Your task to perform on an android device: turn off sleep mode Image 0: 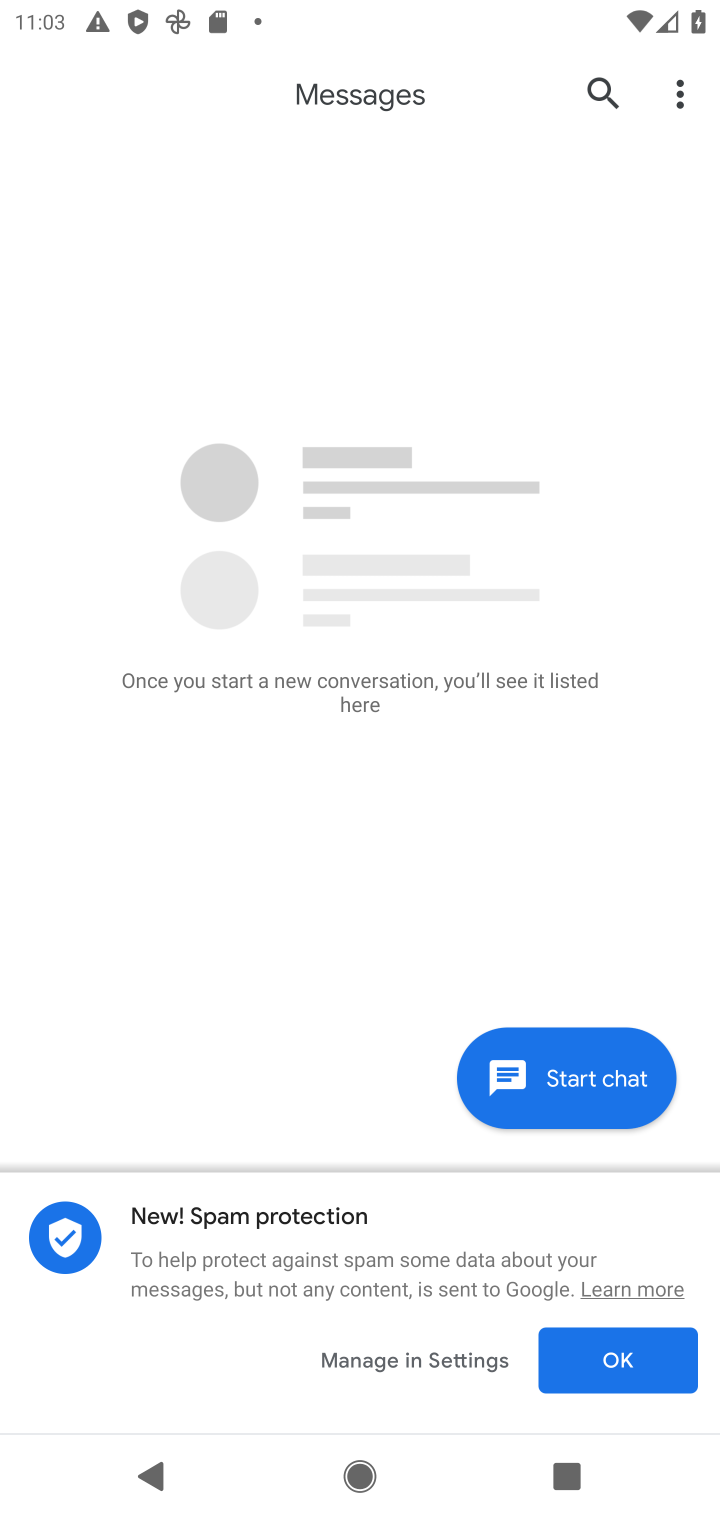
Step 0: press home button
Your task to perform on an android device: turn off sleep mode Image 1: 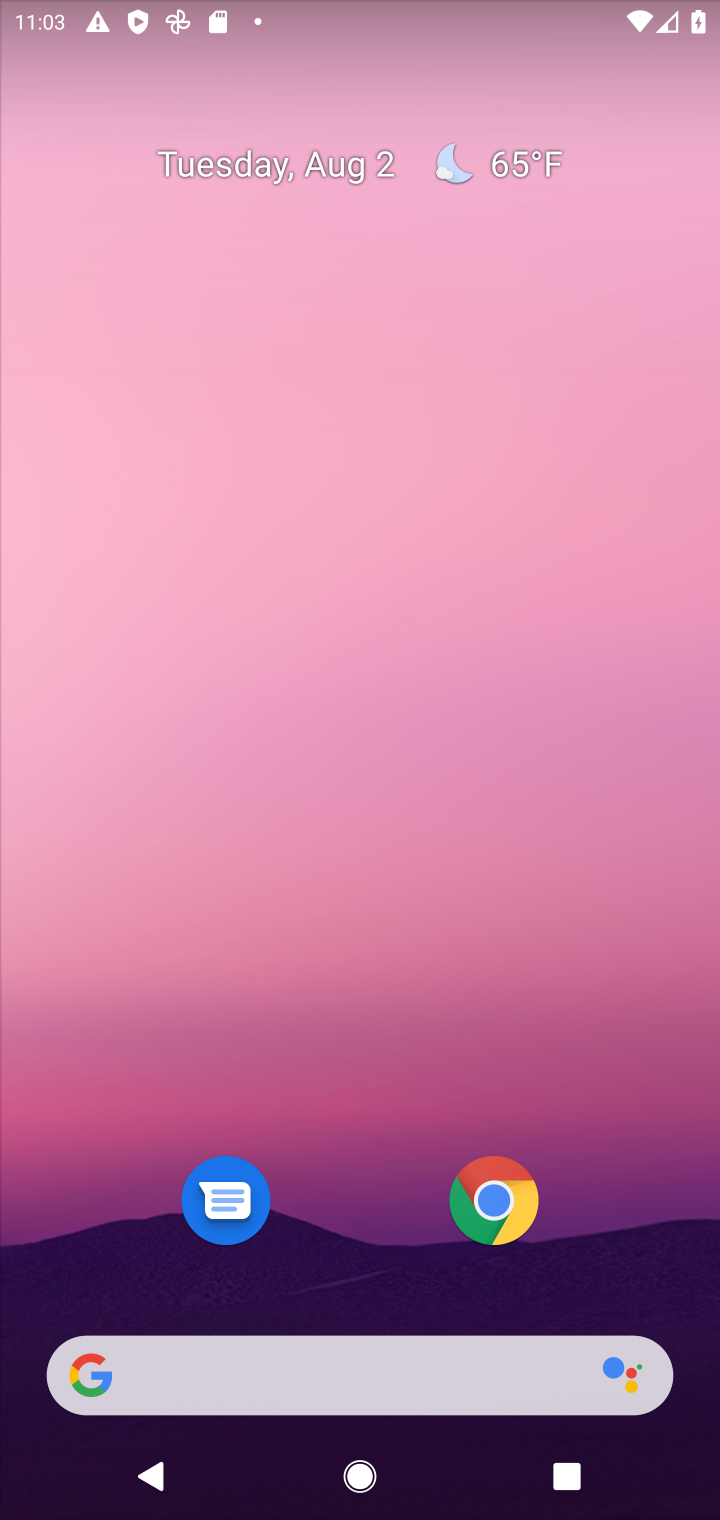
Step 1: drag from (669, 1269) to (611, 254)
Your task to perform on an android device: turn off sleep mode Image 2: 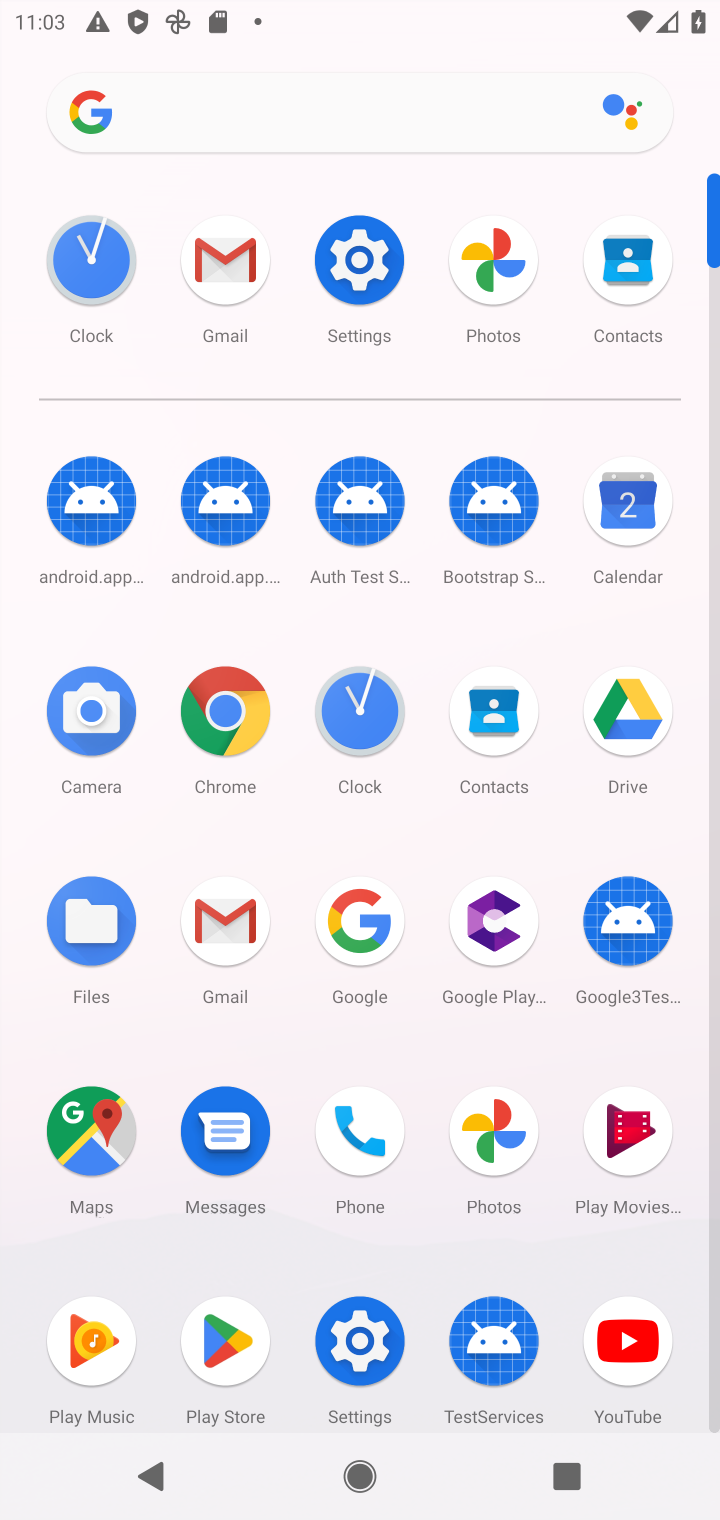
Step 2: click (367, 1342)
Your task to perform on an android device: turn off sleep mode Image 3: 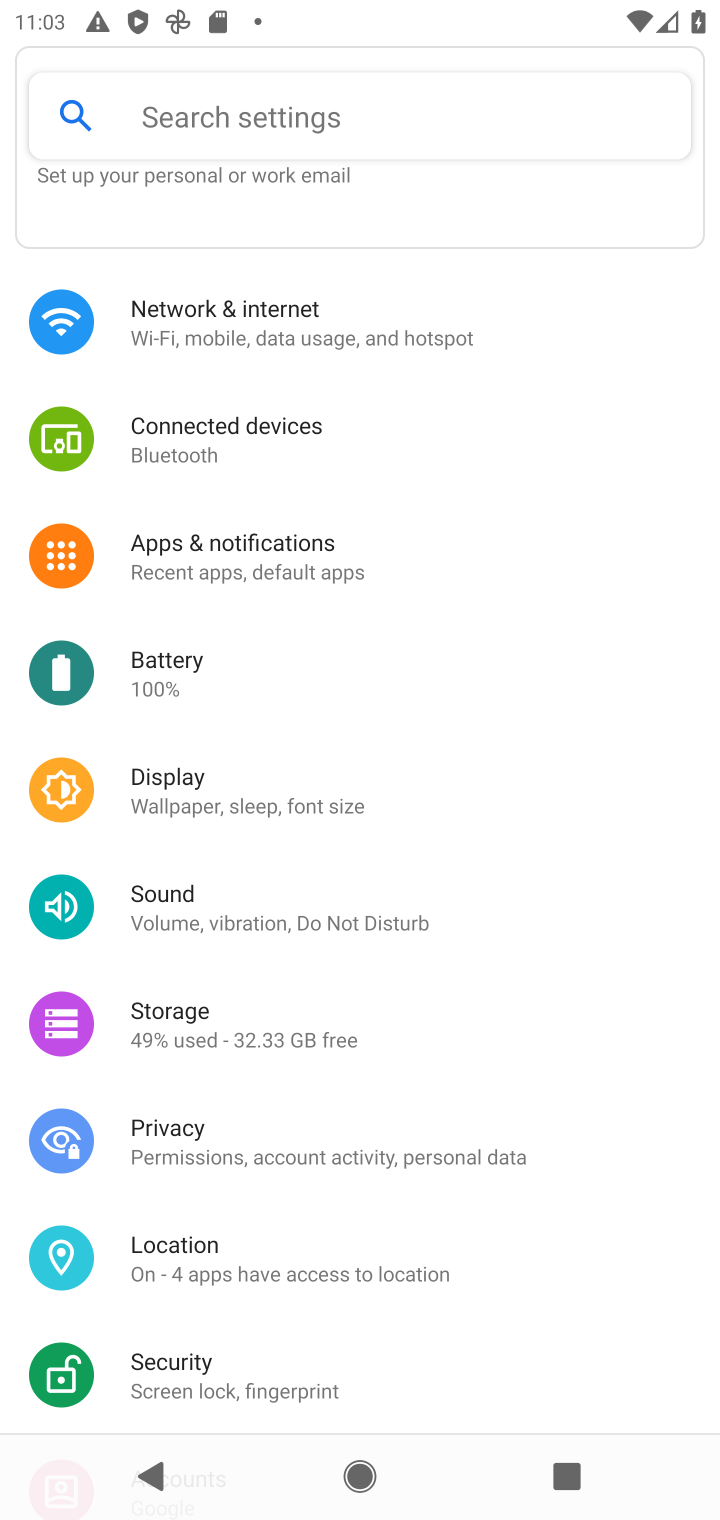
Step 3: click (190, 788)
Your task to perform on an android device: turn off sleep mode Image 4: 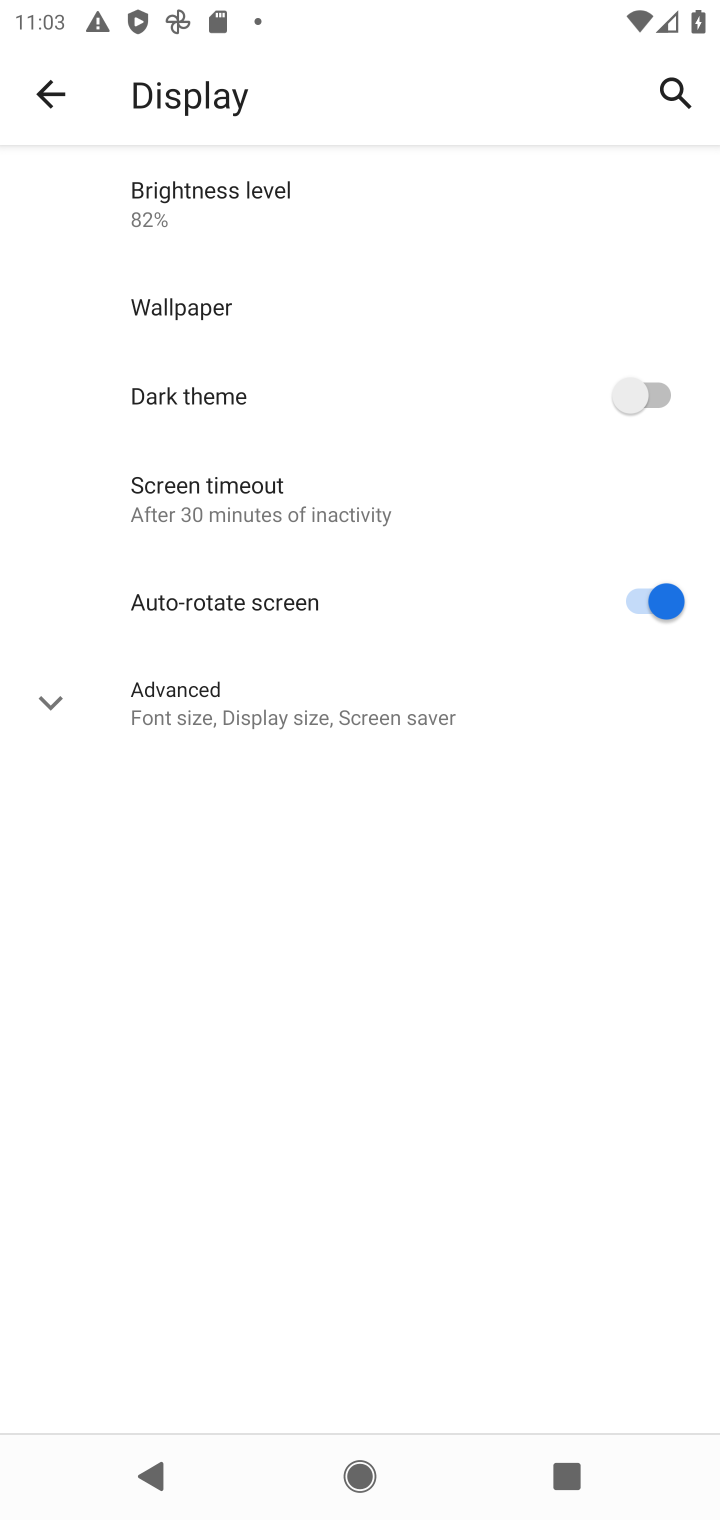
Step 4: click (48, 690)
Your task to perform on an android device: turn off sleep mode Image 5: 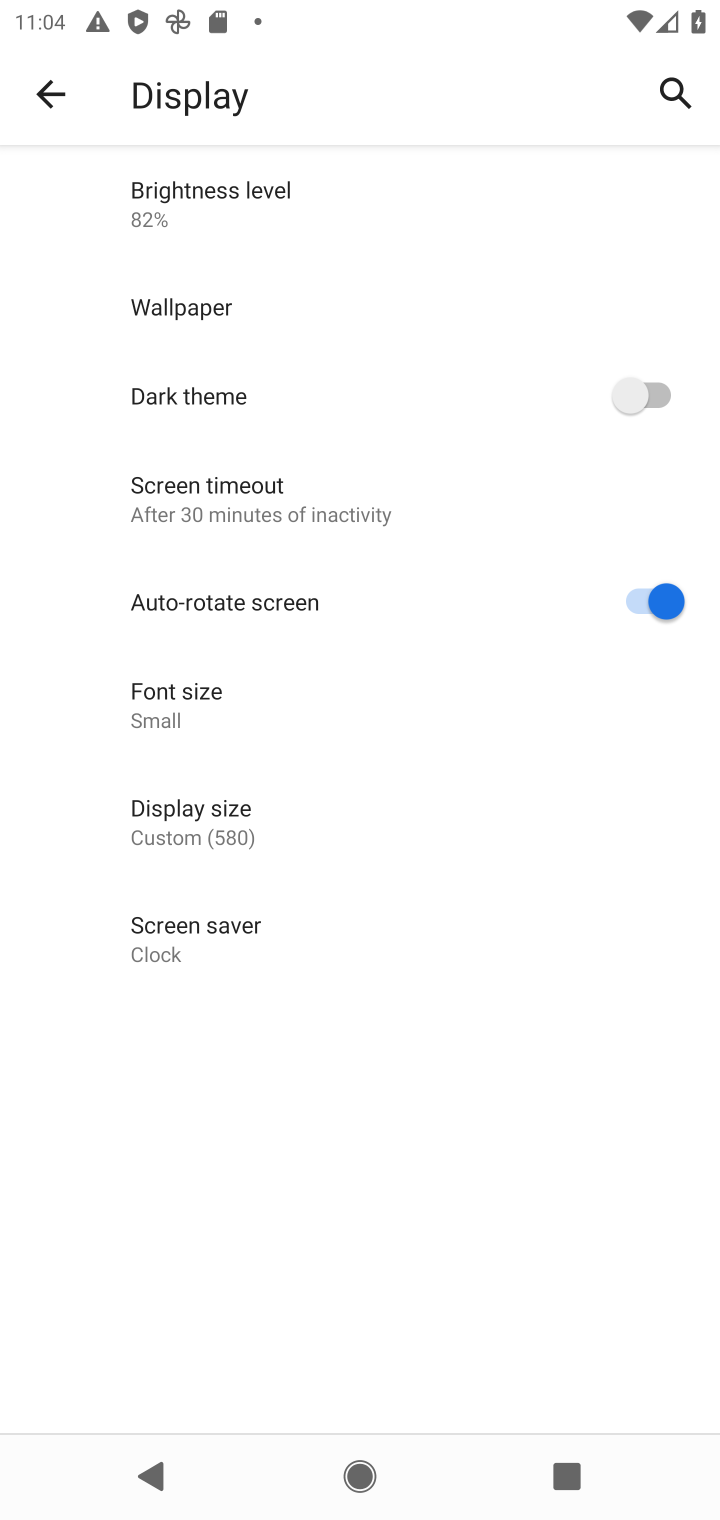
Step 5: task complete